Your task to perform on an android device: Show me productivity apps on the Play Store Image 0: 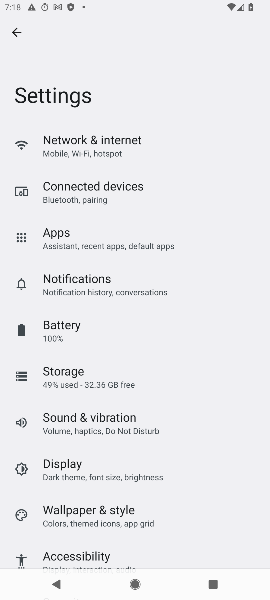
Step 0: press home button
Your task to perform on an android device: Show me productivity apps on the Play Store Image 1: 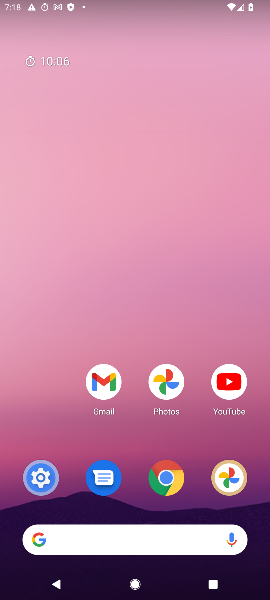
Step 1: drag from (140, 496) to (140, 148)
Your task to perform on an android device: Show me productivity apps on the Play Store Image 2: 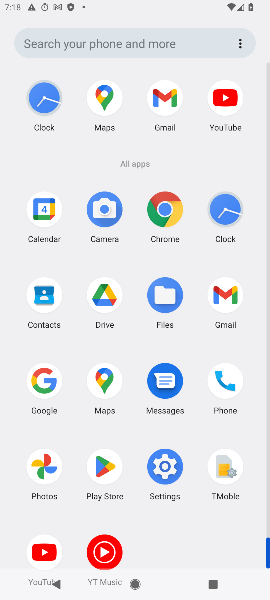
Step 2: click (102, 458)
Your task to perform on an android device: Show me productivity apps on the Play Store Image 3: 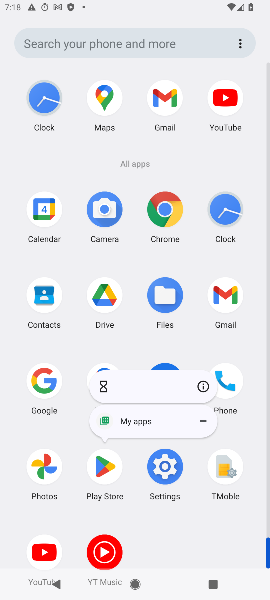
Step 3: click (209, 392)
Your task to perform on an android device: Show me productivity apps on the Play Store Image 4: 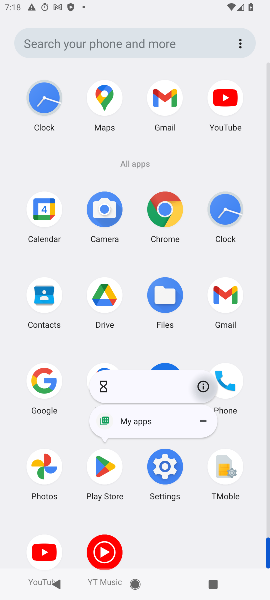
Step 4: click (208, 391)
Your task to perform on an android device: Show me productivity apps on the Play Store Image 5: 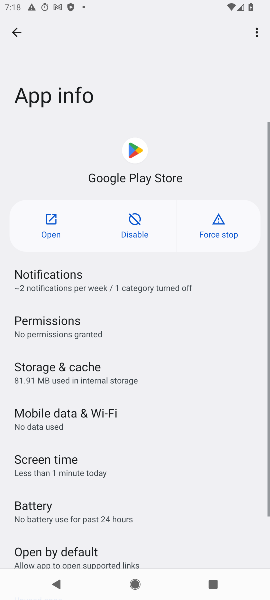
Step 5: click (33, 225)
Your task to perform on an android device: Show me productivity apps on the Play Store Image 6: 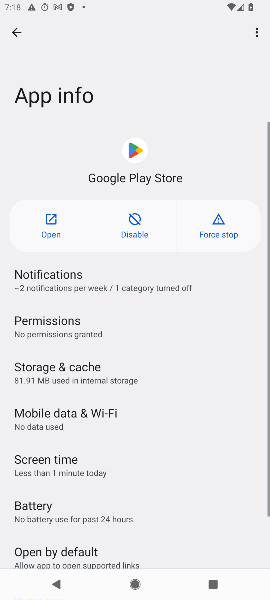
Step 6: click (33, 225)
Your task to perform on an android device: Show me productivity apps on the Play Store Image 7: 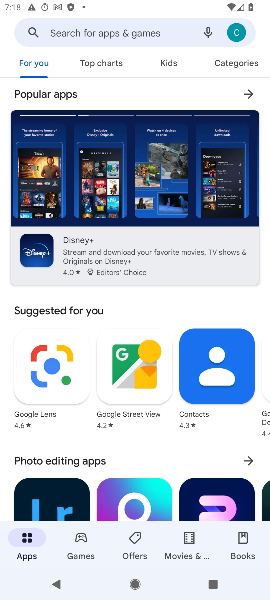
Step 7: task complete